Your task to perform on an android device: turn off sleep mode Image 0: 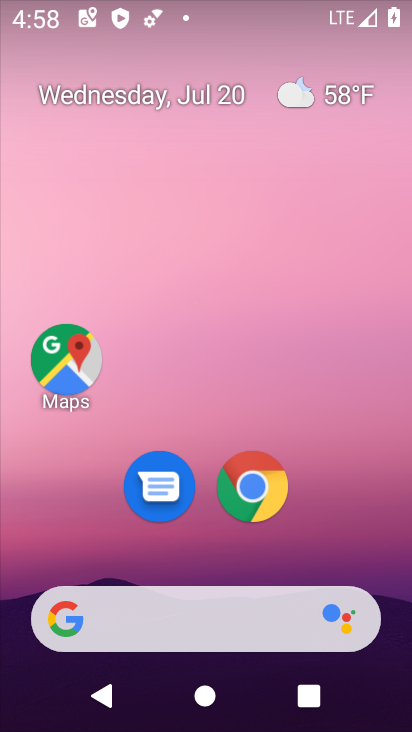
Step 0: drag from (172, 557) to (226, 20)
Your task to perform on an android device: turn off sleep mode Image 1: 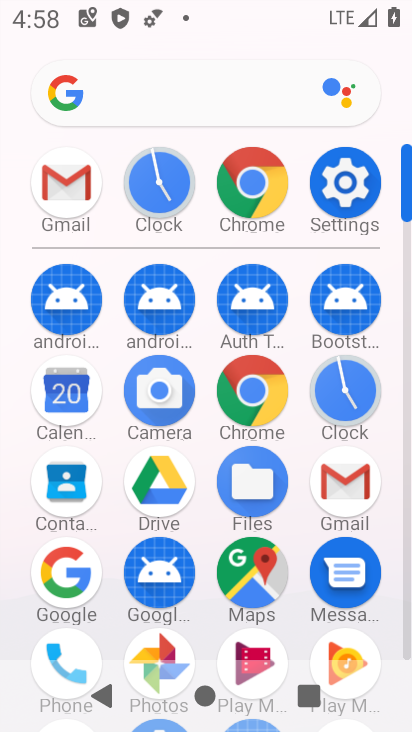
Step 1: click (360, 179)
Your task to perform on an android device: turn off sleep mode Image 2: 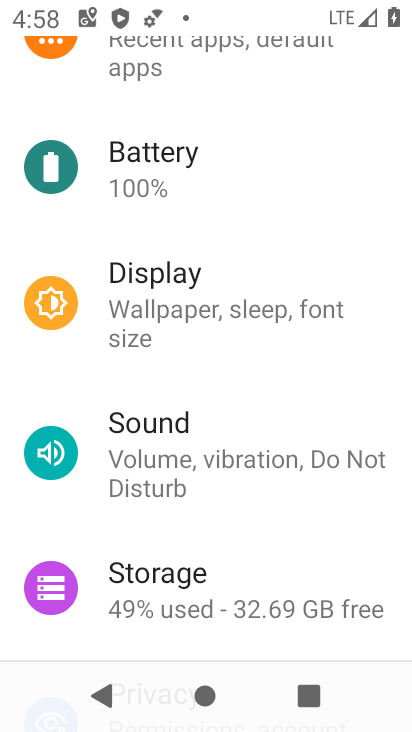
Step 2: drag from (269, 175) to (186, 660)
Your task to perform on an android device: turn off sleep mode Image 3: 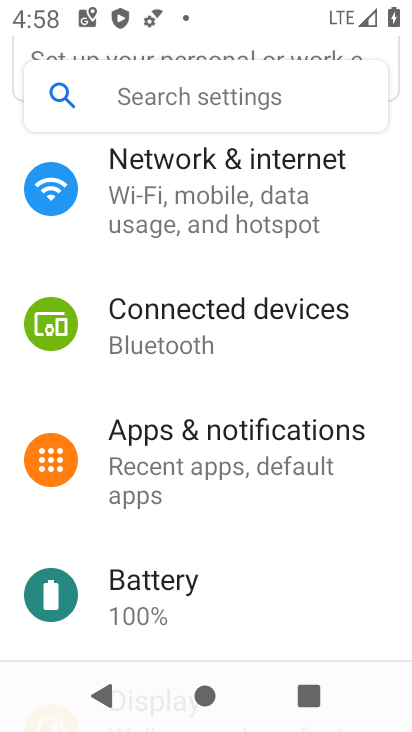
Step 3: click (174, 95)
Your task to perform on an android device: turn off sleep mode Image 4: 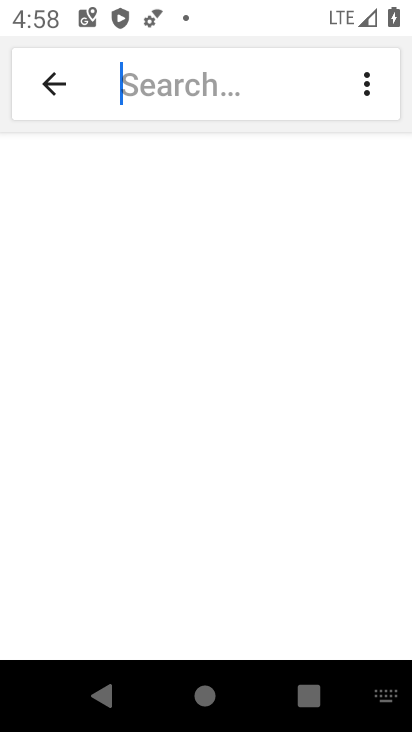
Step 4: type "sleep mode"
Your task to perform on an android device: turn off sleep mode Image 5: 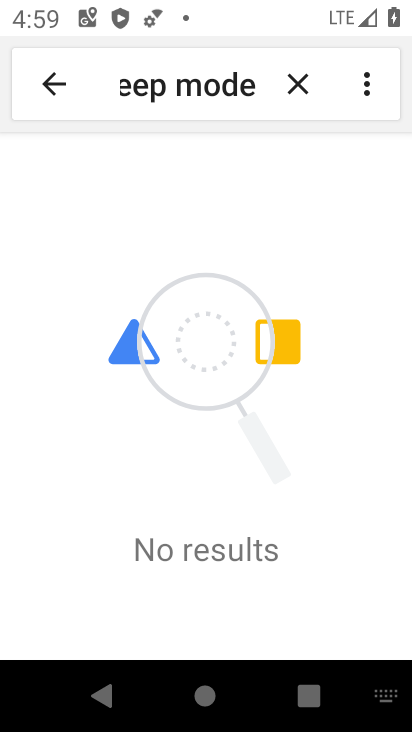
Step 5: task complete